Your task to perform on an android device: snooze an email in the gmail app Image 0: 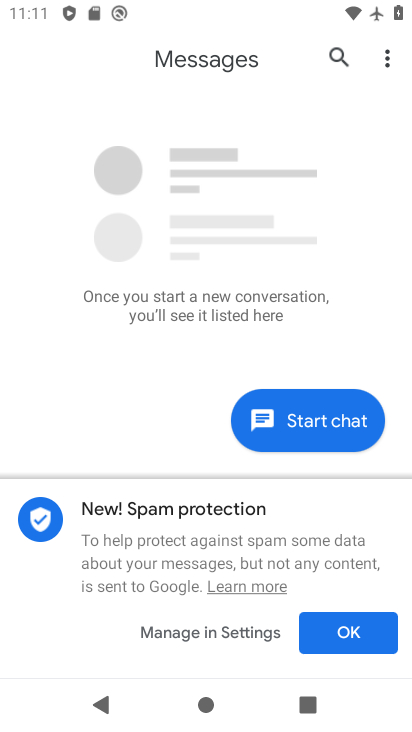
Step 0: press home button
Your task to perform on an android device: snooze an email in the gmail app Image 1: 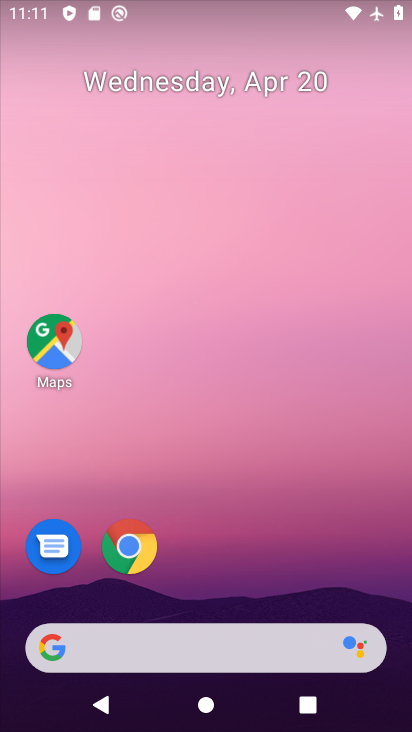
Step 1: drag from (175, 644) to (280, 177)
Your task to perform on an android device: snooze an email in the gmail app Image 2: 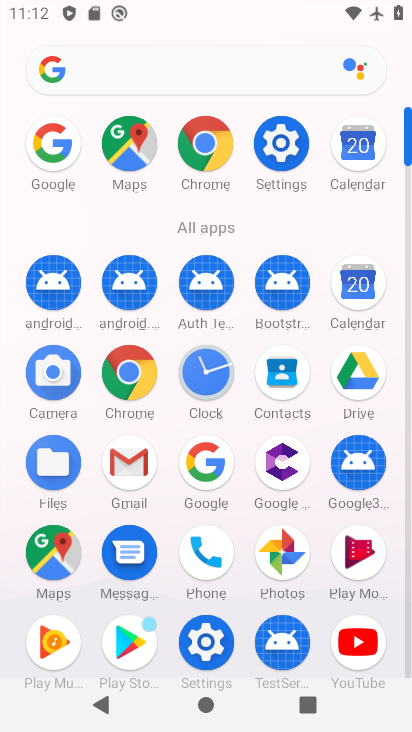
Step 2: click (130, 461)
Your task to perform on an android device: snooze an email in the gmail app Image 3: 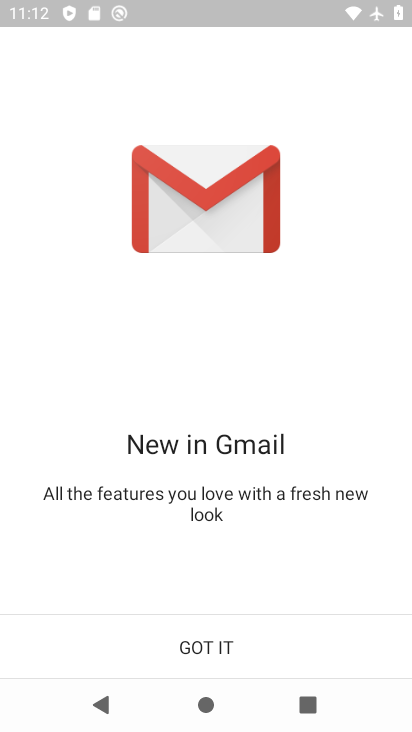
Step 3: click (210, 645)
Your task to perform on an android device: snooze an email in the gmail app Image 4: 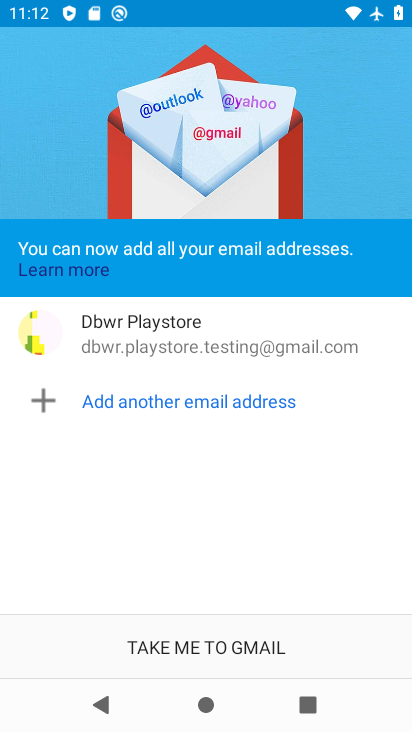
Step 4: click (210, 644)
Your task to perform on an android device: snooze an email in the gmail app Image 5: 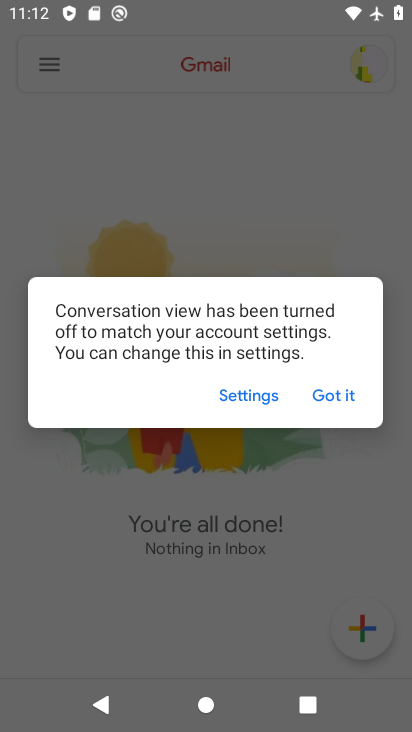
Step 5: click (337, 393)
Your task to perform on an android device: snooze an email in the gmail app Image 6: 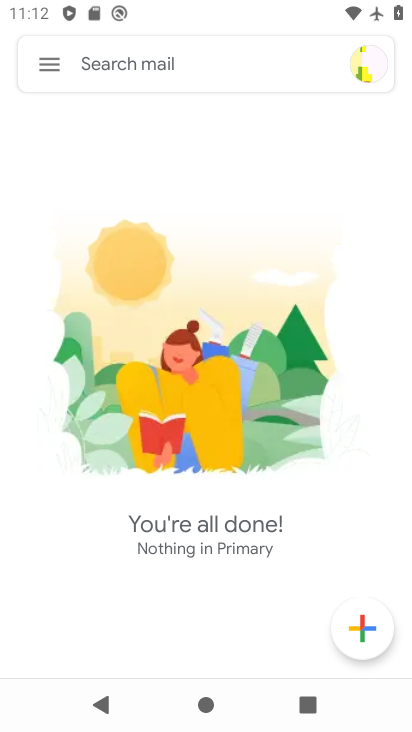
Step 6: task complete